Your task to perform on an android device: Open Chrome and go to settings Image 0: 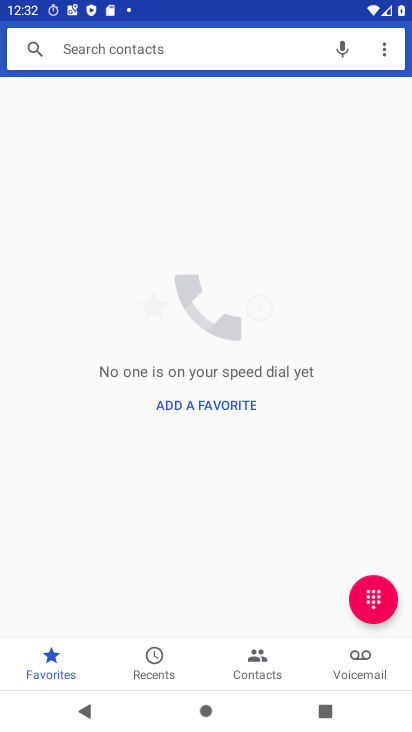
Step 0: press back button
Your task to perform on an android device: Open Chrome and go to settings Image 1: 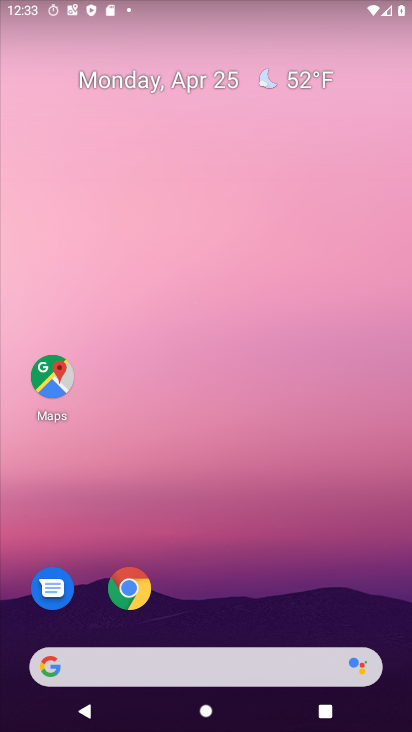
Step 1: drag from (182, 648) to (288, 13)
Your task to perform on an android device: Open Chrome and go to settings Image 2: 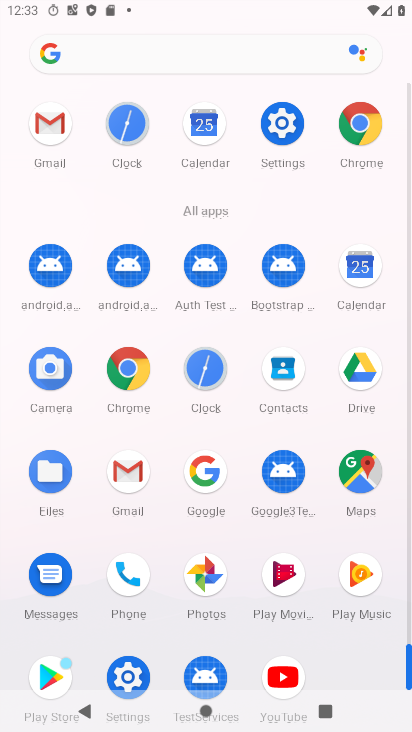
Step 2: click (126, 361)
Your task to perform on an android device: Open Chrome and go to settings Image 3: 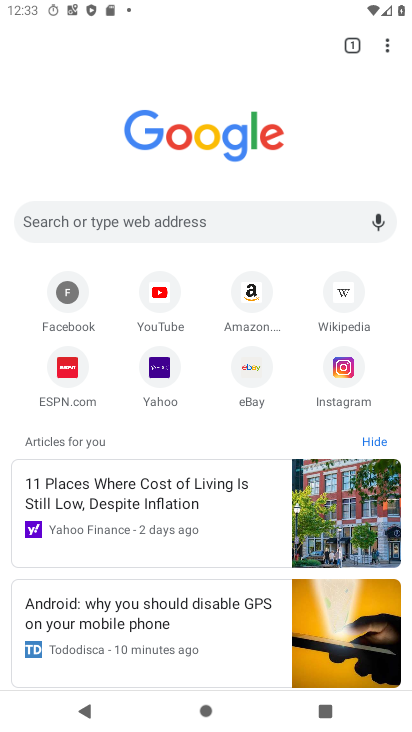
Step 3: task complete